Your task to perform on an android device: turn on location history Image 0: 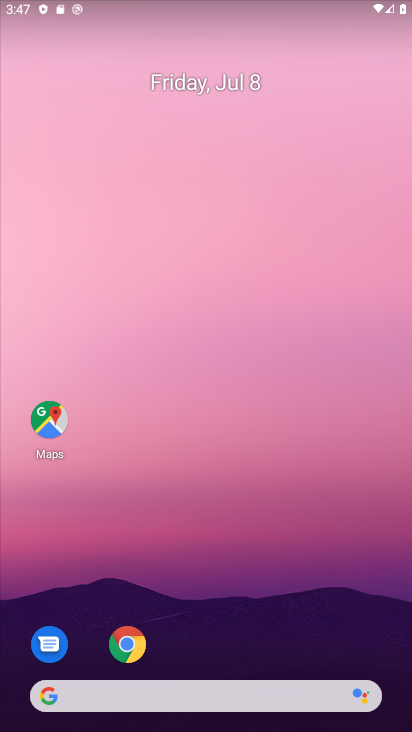
Step 0: press home button
Your task to perform on an android device: turn on location history Image 1: 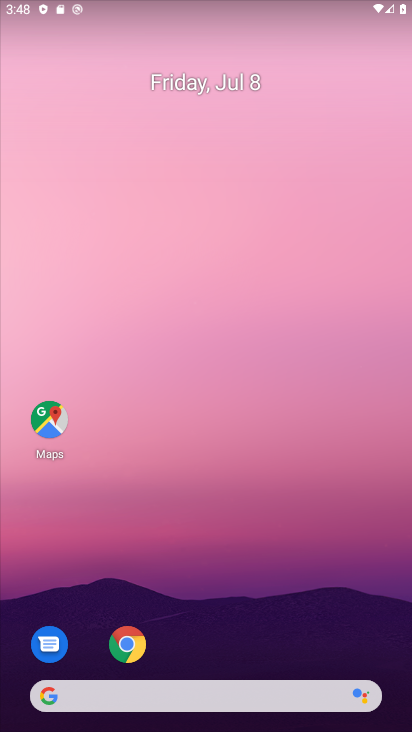
Step 1: drag from (189, 575) to (259, 119)
Your task to perform on an android device: turn on location history Image 2: 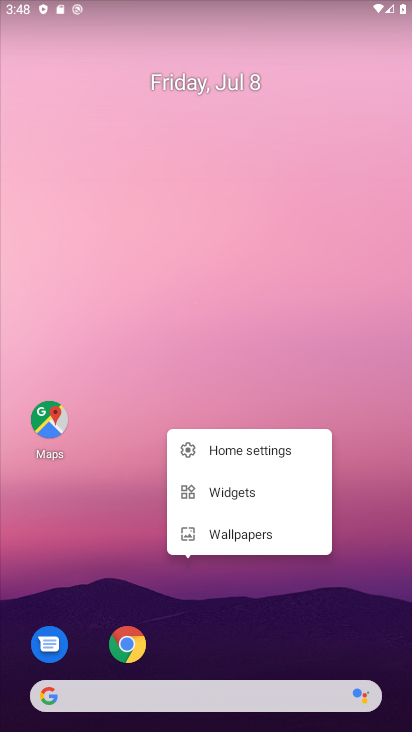
Step 2: drag from (111, 532) to (278, 2)
Your task to perform on an android device: turn on location history Image 3: 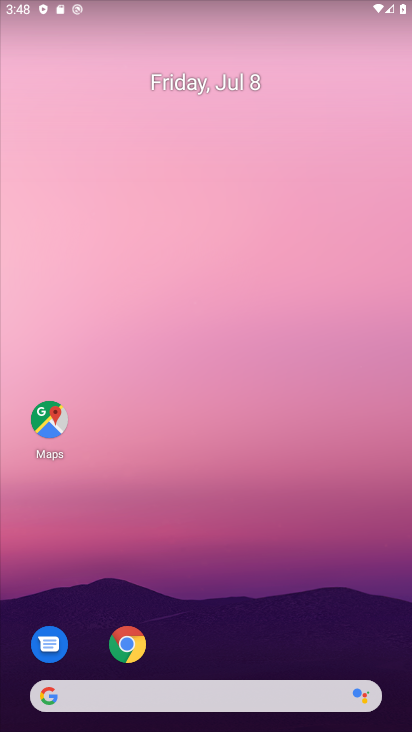
Step 3: drag from (209, 550) to (342, 11)
Your task to perform on an android device: turn on location history Image 4: 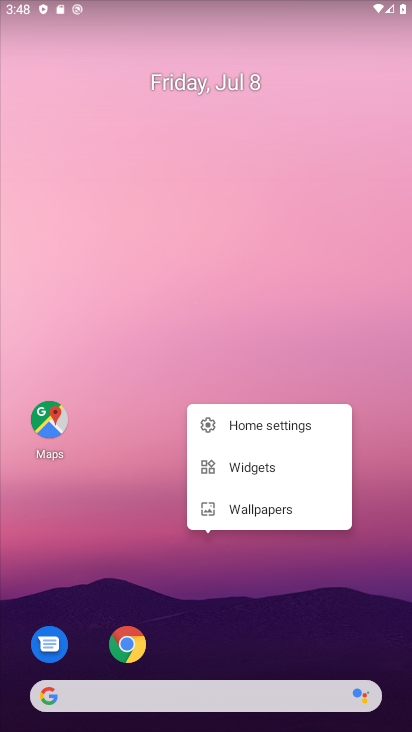
Step 4: drag from (253, 640) to (301, 6)
Your task to perform on an android device: turn on location history Image 5: 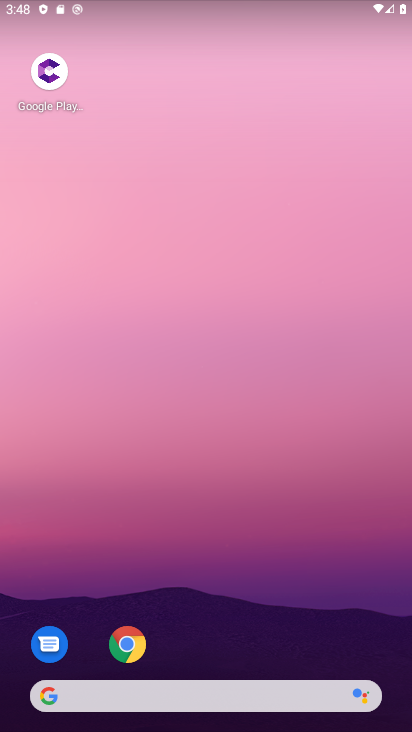
Step 5: press home button
Your task to perform on an android device: turn on location history Image 6: 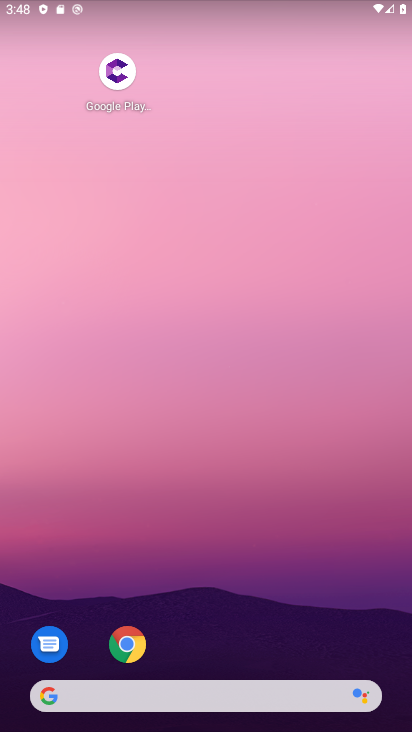
Step 6: press home button
Your task to perform on an android device: turn on location history Image 7: 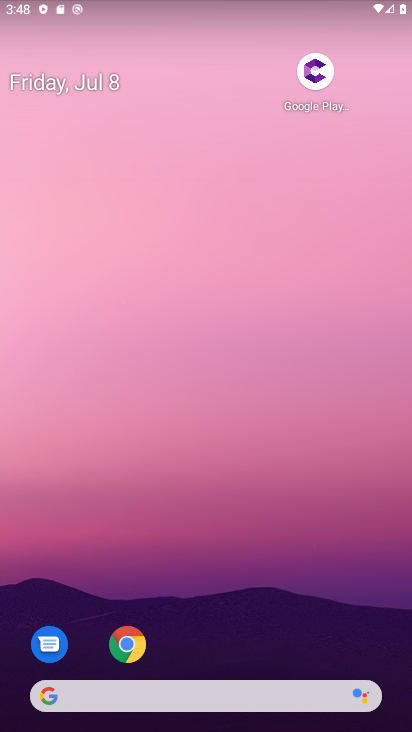
Step 7: drag from (252, 642) to (284, 1)
Your task to perform on an android device: turn on location history Image 8: 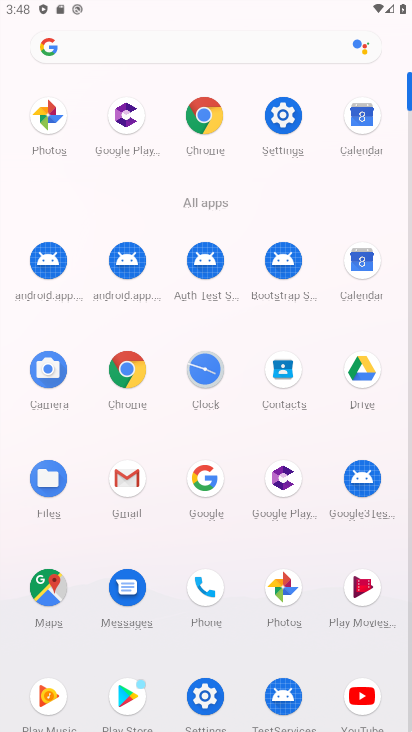
Step 8: drag from (258, 503) to (297, 0)
Your task to perform on an android device: turn on location history Image 9: 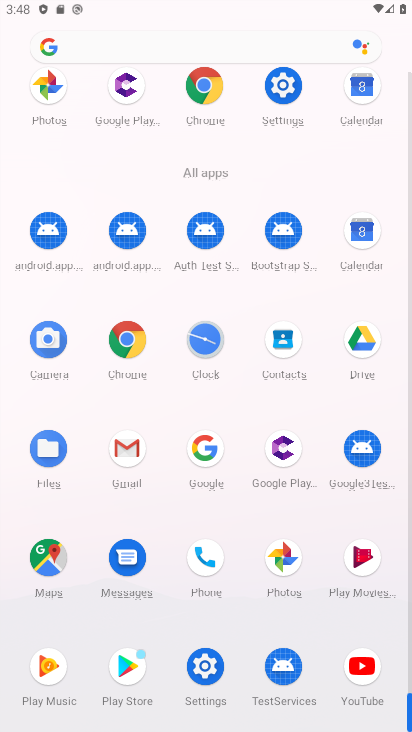
Step 9: click (286, 86)
Your task to perform on an android device: turn on location history Image 10: 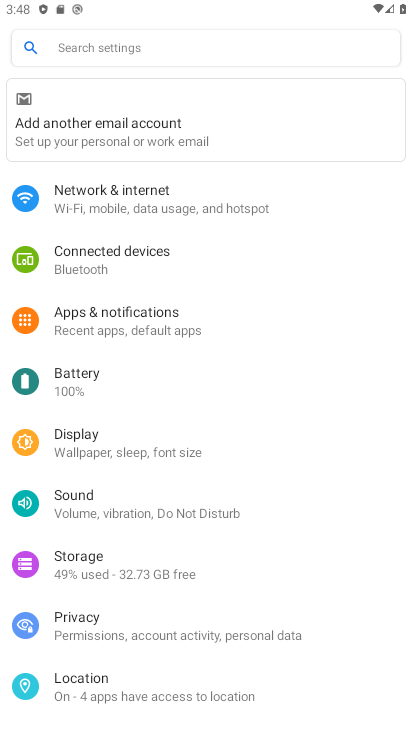
Step 10: click (115, 679)
Your task to perform on an android device: turn on location history Image 11: 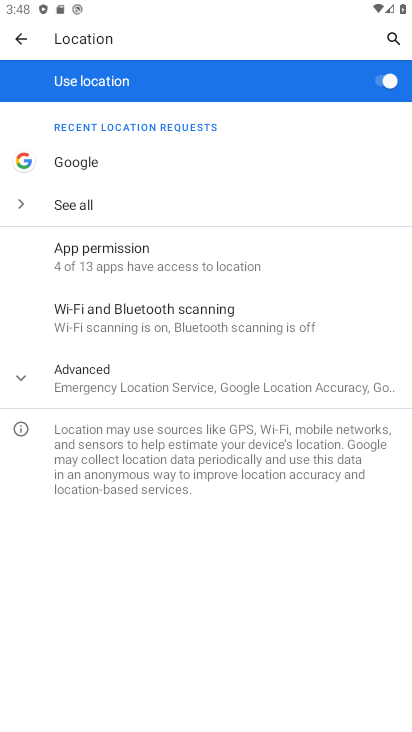
Step 11: task complete